Your task to perform on an android device: turn notification dots on Image 0: 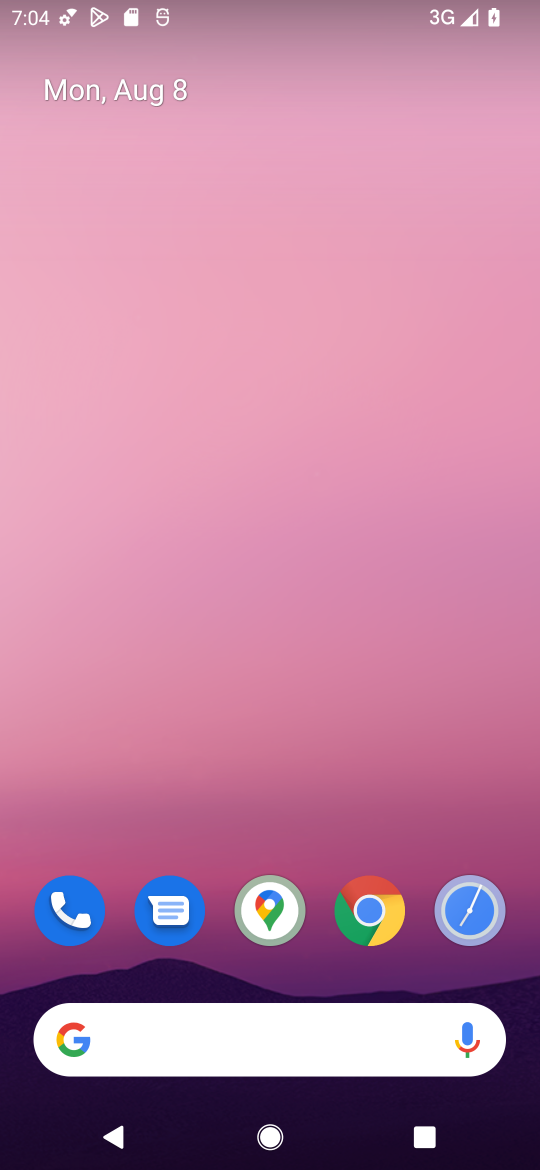
Step 0: drag from (182, 822) to (219, 126)
Your task to perform on an android device: turn notification dots on Image 1: 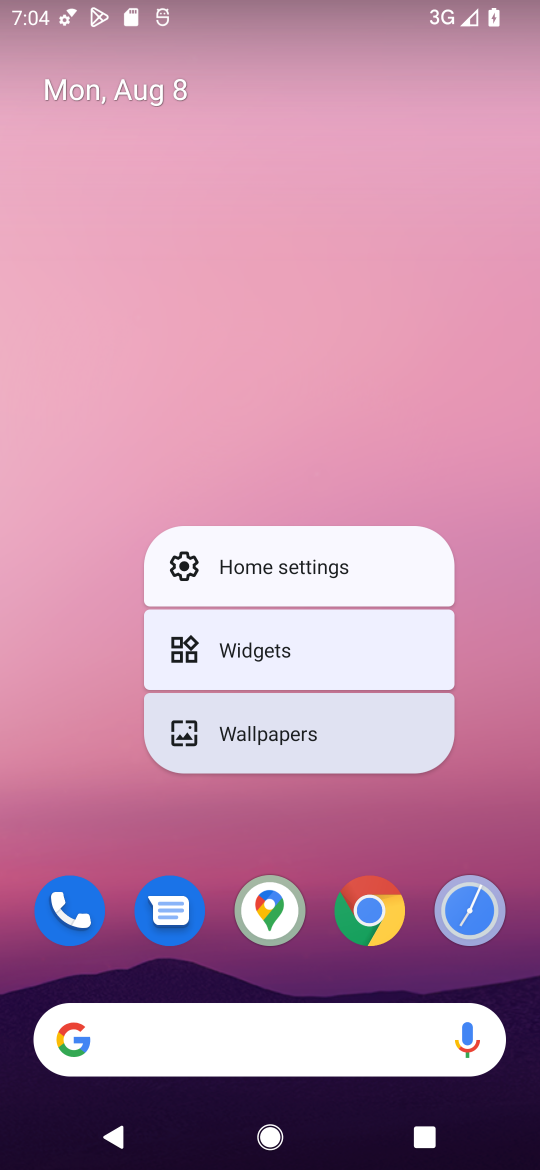
Step 1: click (89, 841)
Your task to perform on an android device: turn notification dots on Image 2: 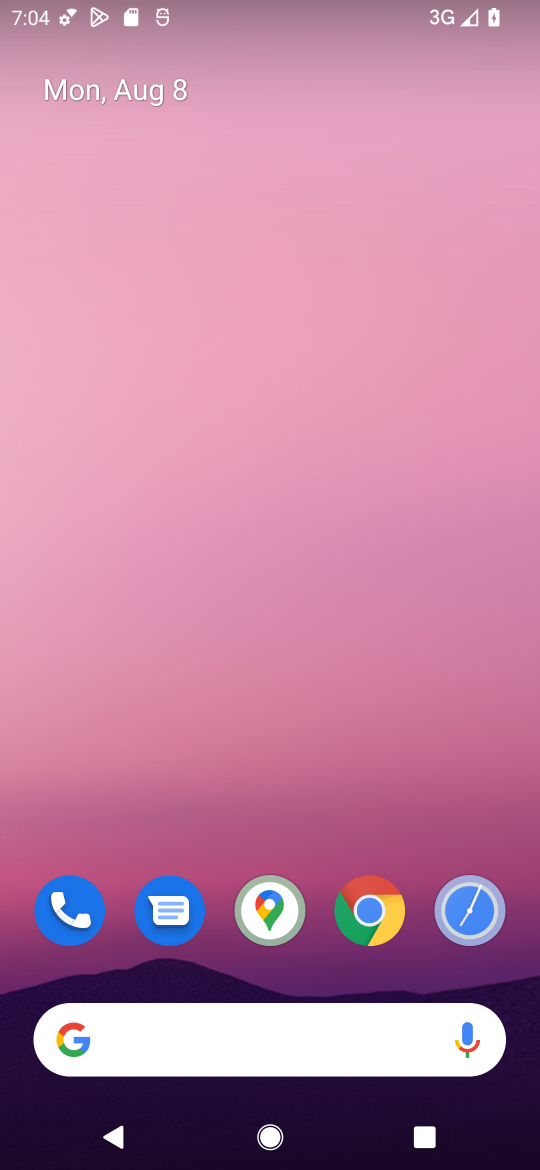
Step 2: drag from (89, 841) to (93, 119)
Your task to perform on an android device: turn notification dots on Image 3: 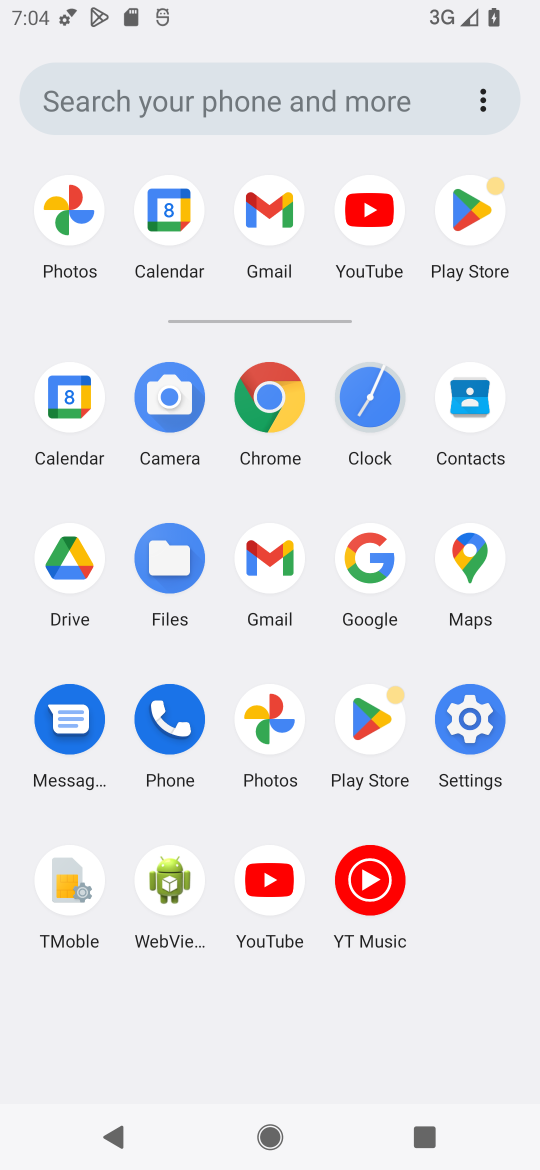
Step 3: click (481, 727)
Your task to perform on an android device: turn notification dots on Image 4: 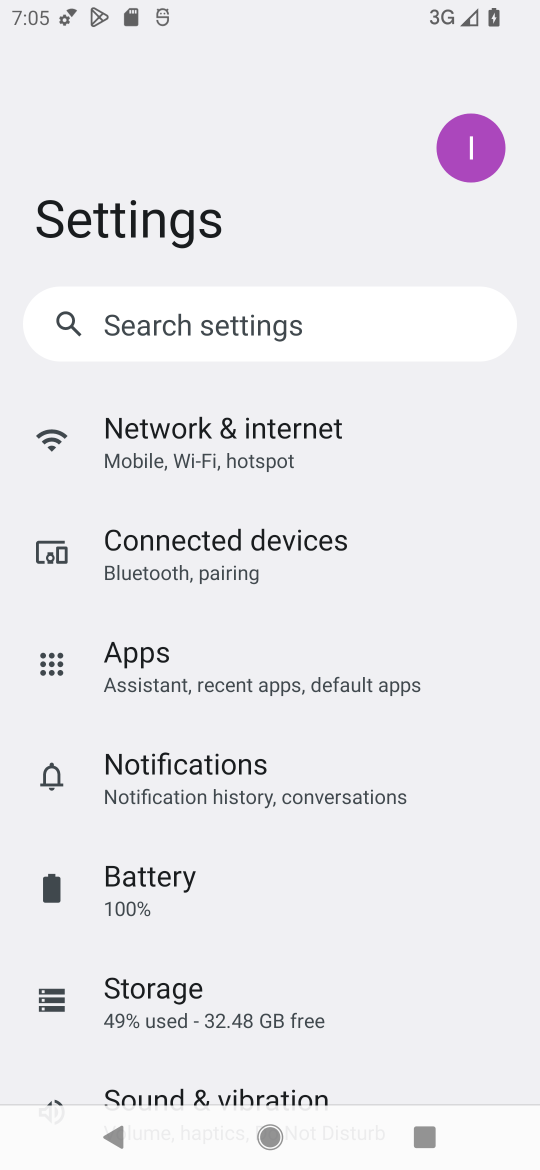
Step 4: click (272, 798)
Your task to perform on an android device: turn notification dots on Image 5: 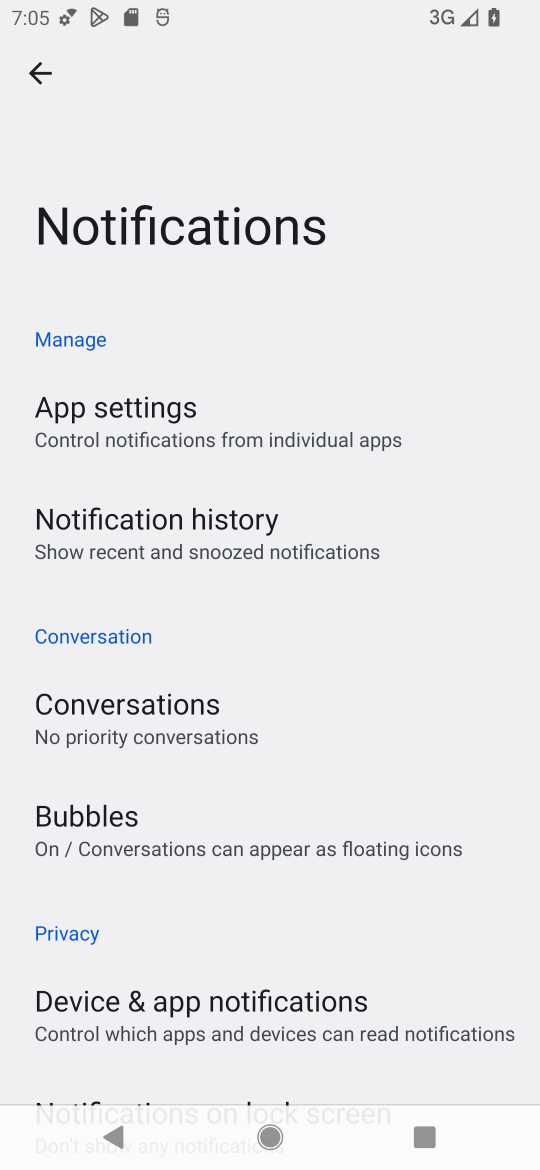
Step 5: task complete